Your task to perform on an android device: Open Maps and search for coffee Image 0: 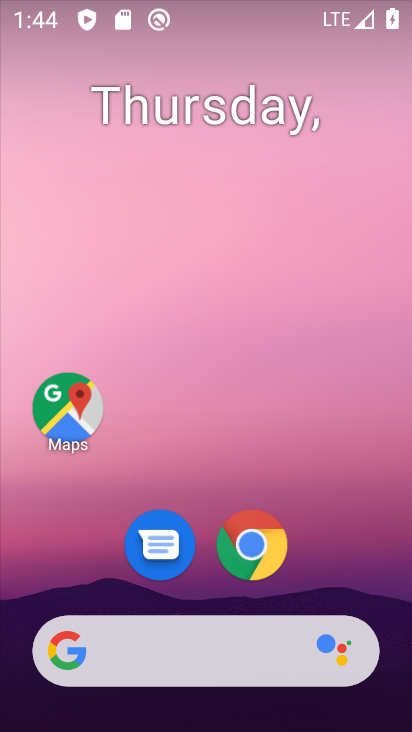
Step 0: click (61, 403)
Your task to perform on an android device: Open Maps and search for coffee Image 1: 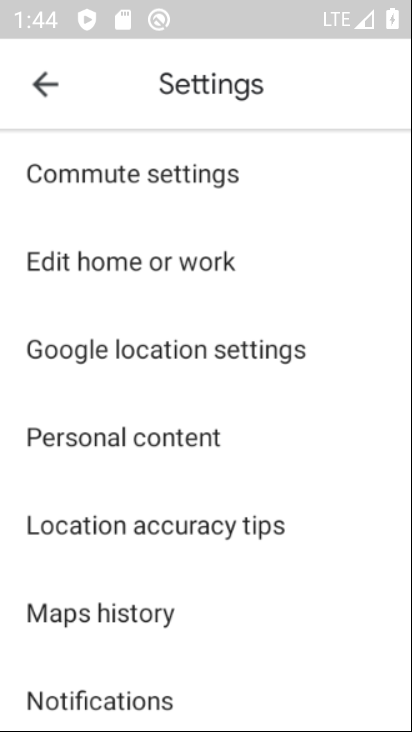
Step 1: click (53, 89)
Your task to perform on an android device: Open Maps and search for coffee Image 2: 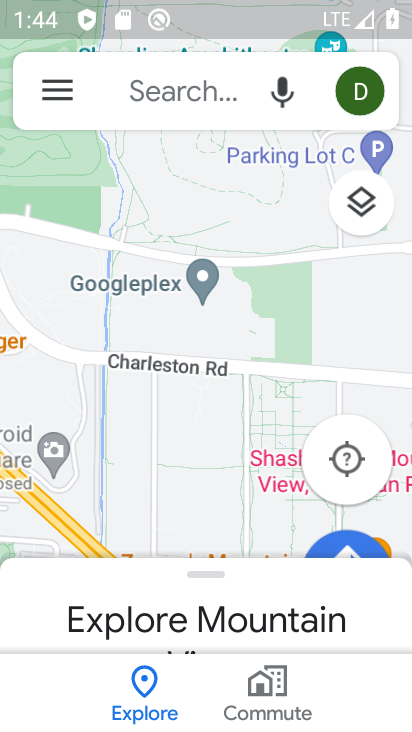
Step 2: click (160, 84)
Your task to perform on an android device: Open Maps and search for coffee Image 3: 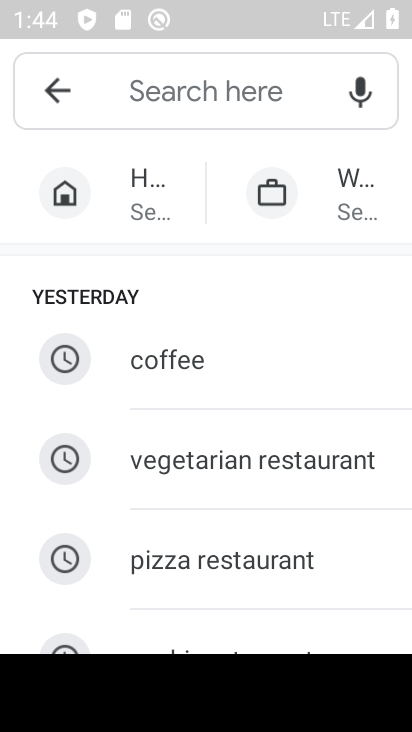
Step 3: click (193, 359)
Your task to perform on an android device: Open Maps and search for coffee Image 4: 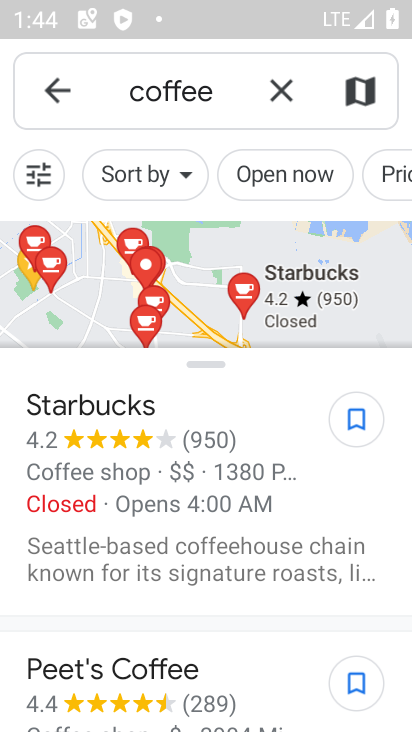
Step 4: task complete